Your task to perform on an android device: Go to Yahoo.com Image 0: 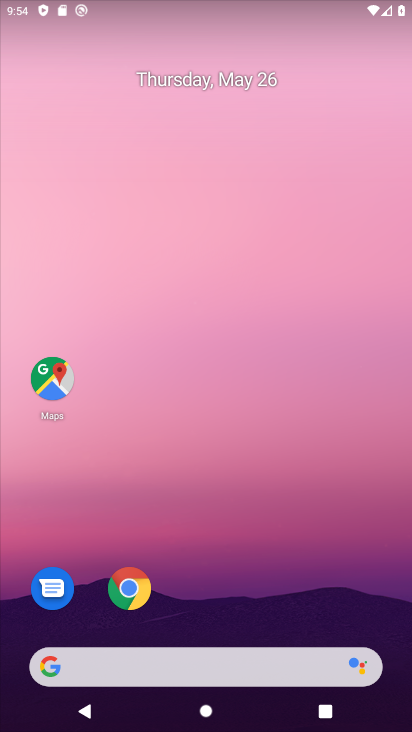
Step 0: click (128, 591)
Your task to perform on an android device: Go to Yahoo.com Image 1: 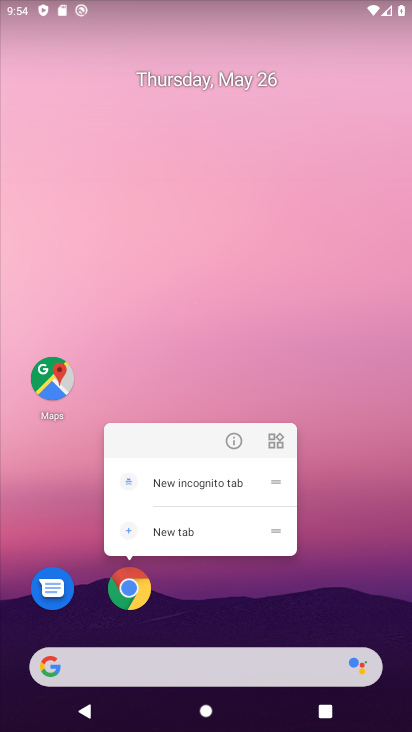
Step 1: click (130, 590)
Your task to perform on an android device: Go to Yahoo.com Image 2: 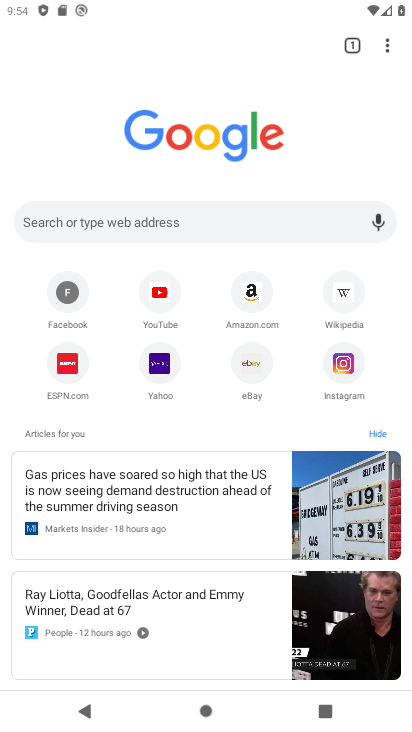
Step 2: click (151, 364)
Your task to perform on an android device: Go to Yahoo.com Image 3: 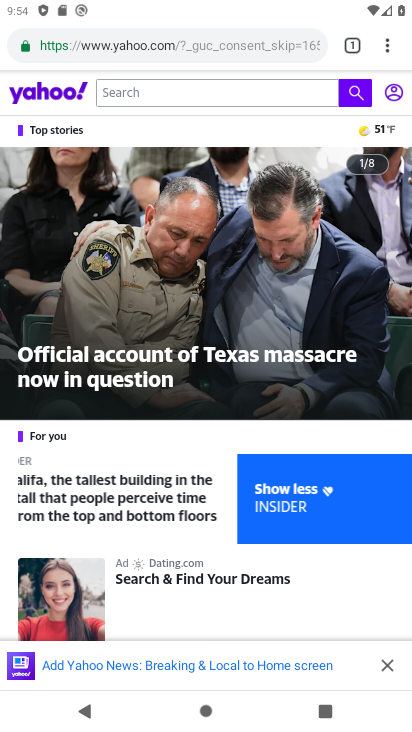
Step 3: task complete